Your task to perform on an android device: Open Google Image 0: 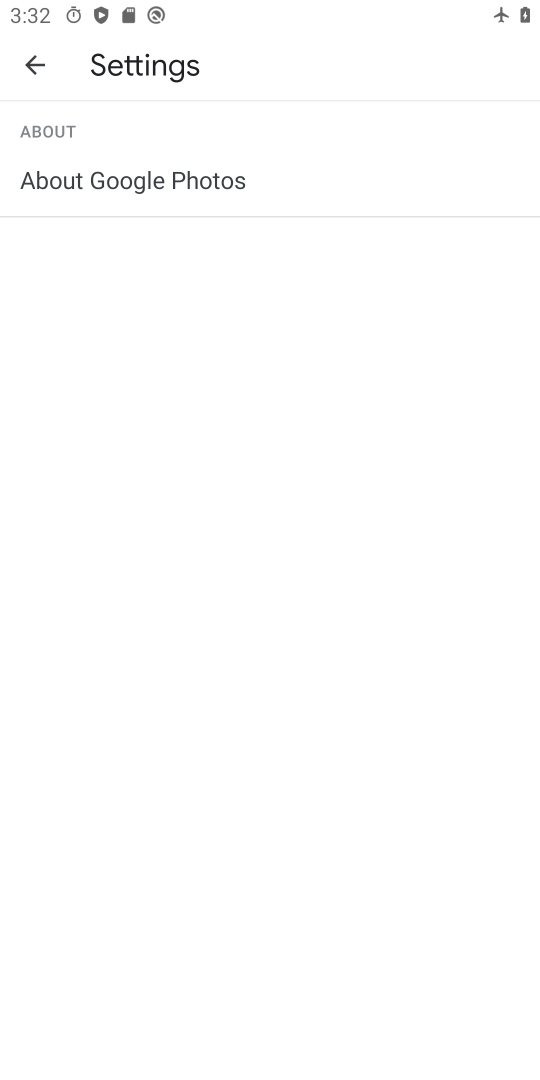
Step 0: press home button
Your task to perform on an android device: Open Google Image 1: 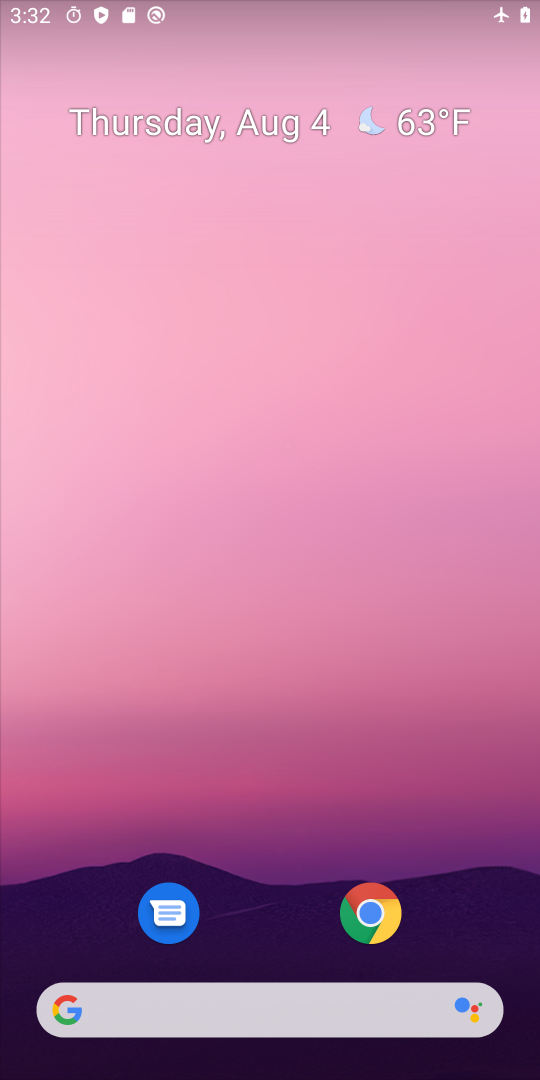
Step 1: drag from (185, 927) to (221, 73)
Your task to perform on an android device: Open Google Image 2: 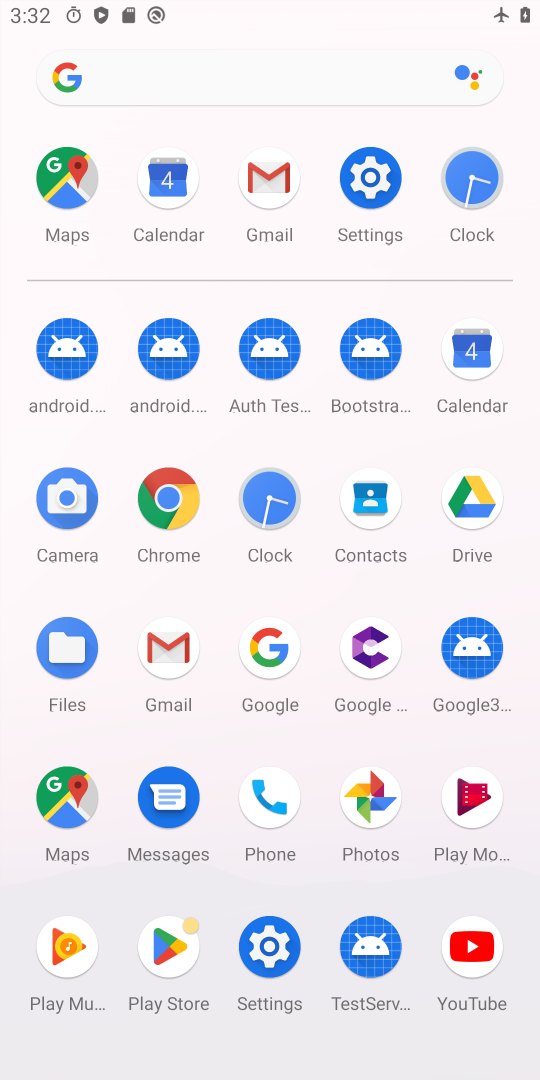
Step 2: click (266, 662)
Your task to perform on an android device: Open Google Image 3: 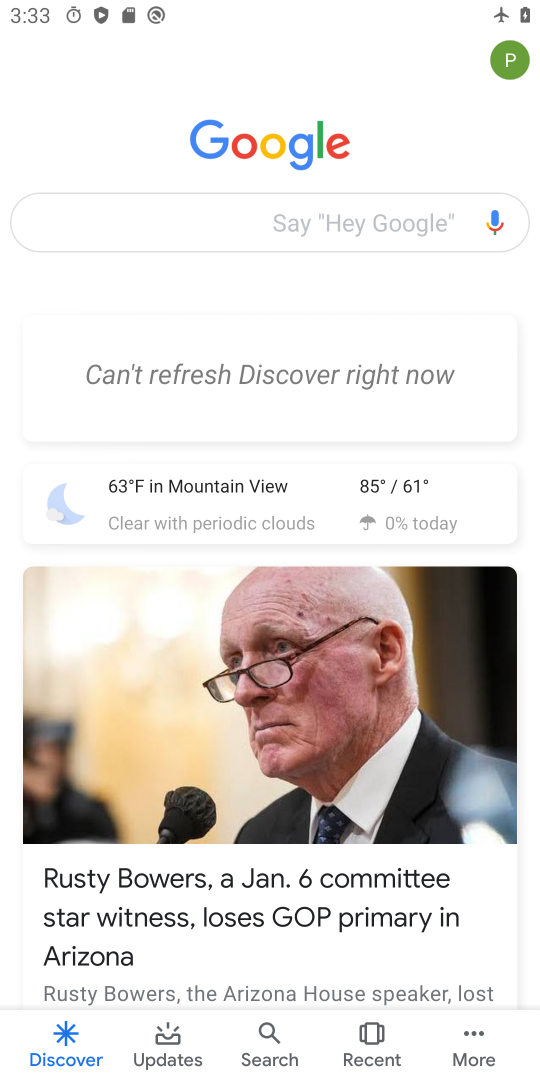
Step 3: task complete